Your task to perform on an android device: Go to Amazon Image 0: 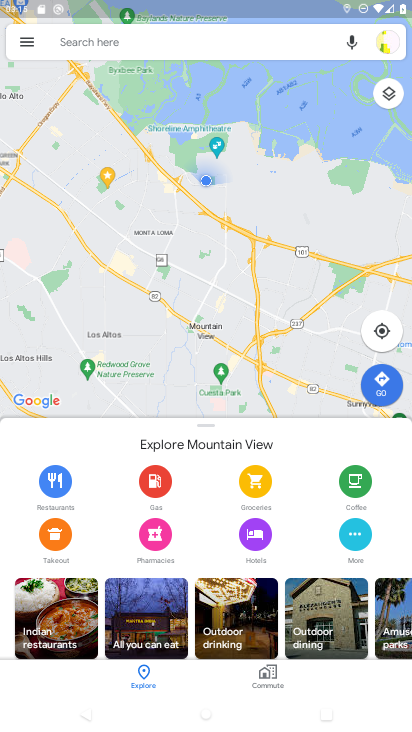
Step 0: press home button
Your task to perform on an android device: Go to Amazon Image 1: 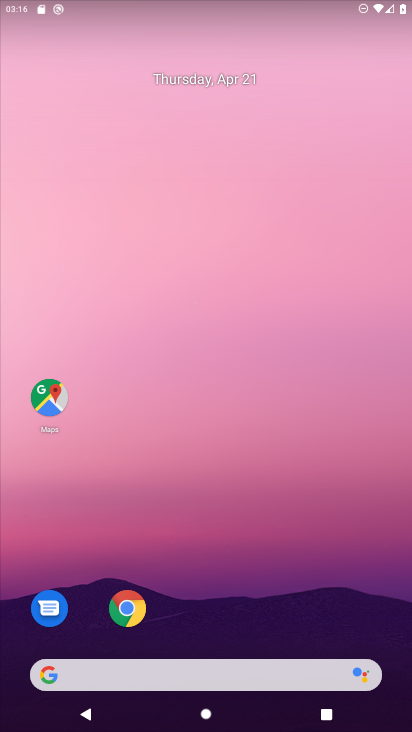
Step 1: click (125, 598)
Your task to perform on an android device: Go to Amazon Image 2: 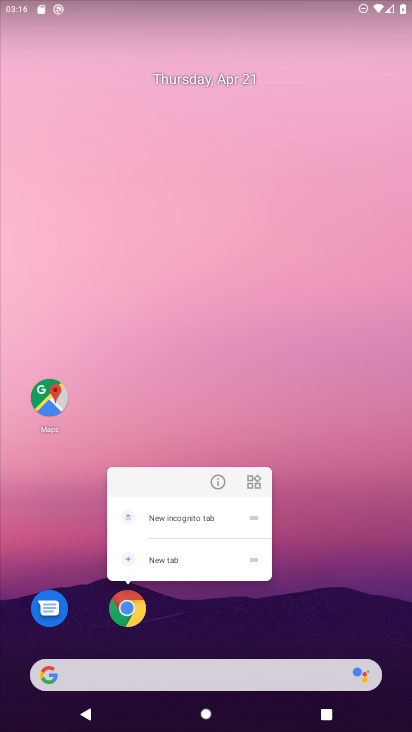
Step 2: click (125, 598)
Your task to perform on an android device: Go to Amazon Image 3: 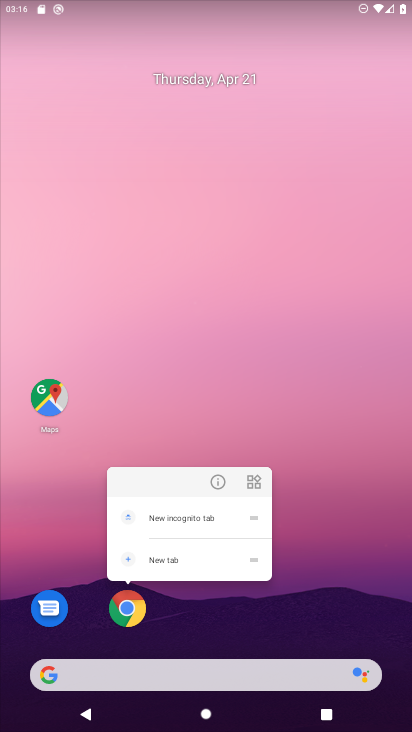
Step 3: click (125, 598)
Your task to perform on an android device: Go to Amazon Image 4: 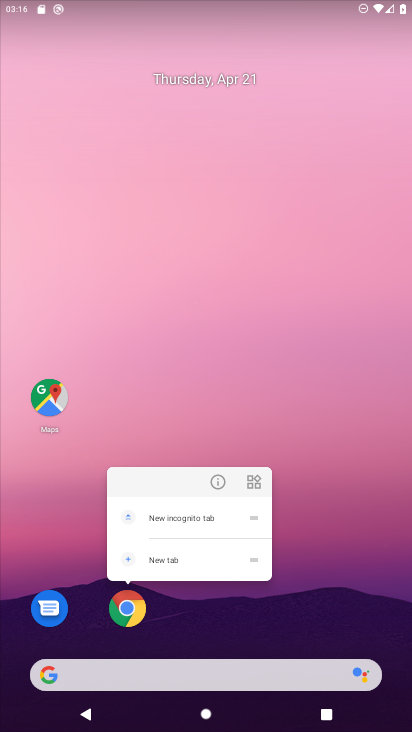
Step 4: click (126, 606)
Your task to perform on an android device: Go to Amazon Image 5: 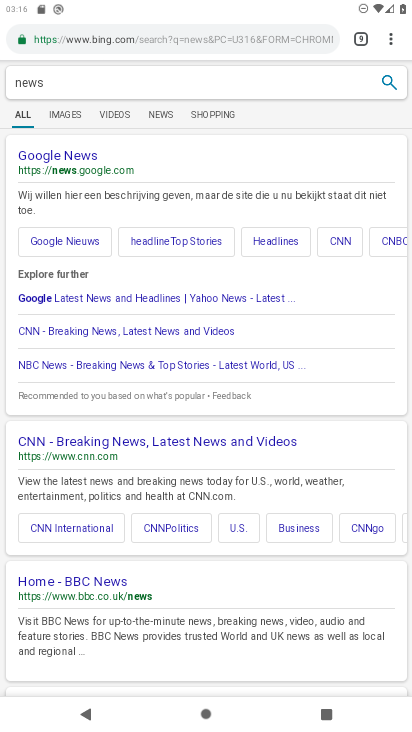
Step 5: click (126, 606)
Your task to perform on an android device: Go to Amazon Image 6: 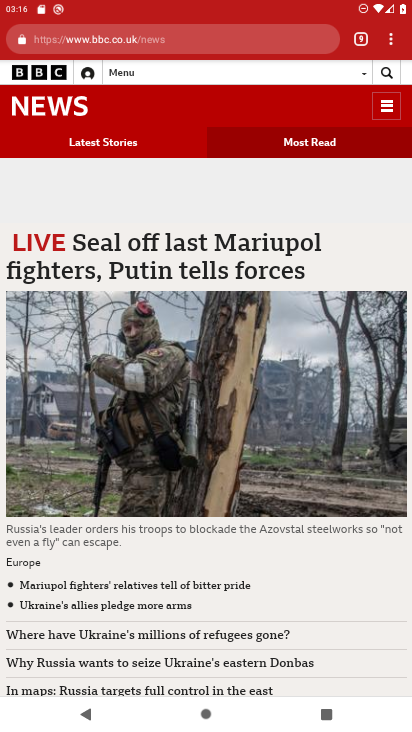
Step 6: click (390, 36)
Your task to perform on an android device: Go to Amazon Image 7: 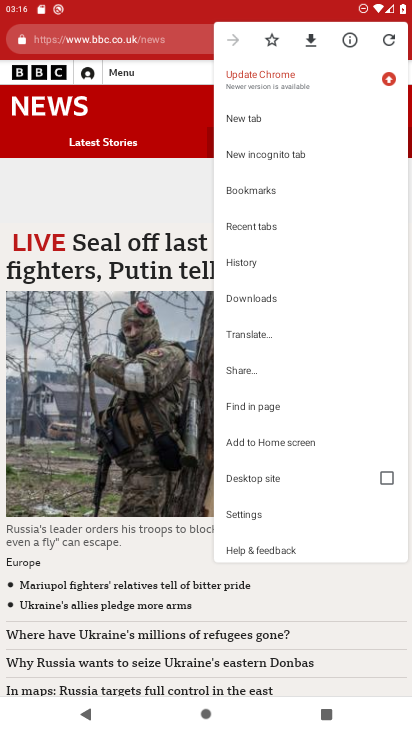
Step 7: click (276, 115)
Your task to perform on an android device: Go to Amazon Image 8: 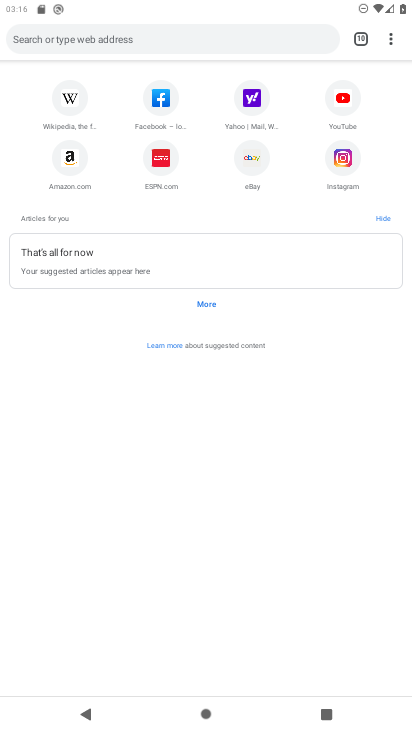
Step 8: click (78, 153)
Your task to perform on an android device: Go to Amazon Image 9: 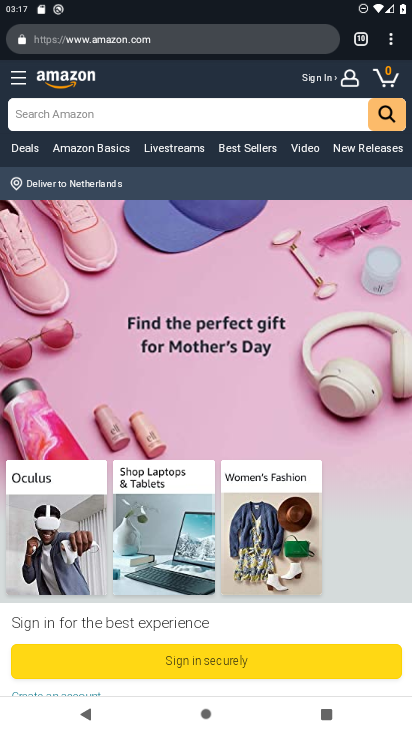
Step 9: task complete